Your task to perform on an android device: Open the map Image 0: 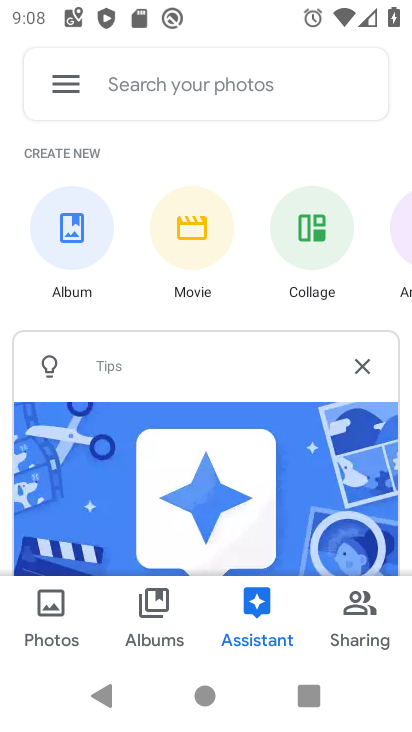
Step 0: press home button
Your task to perform on an android device: Open the map Image 1: 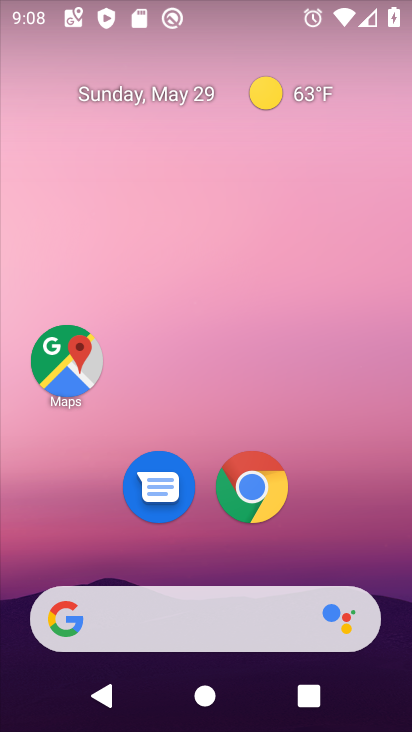
Step 1: drag from (207, 629) to (298, 139)
Your task to perform on an android device: Open the map Image 2: 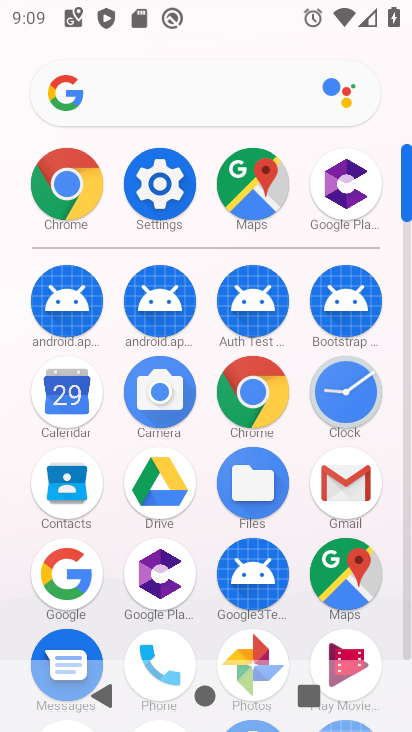
Step 2: click (258, 182)
Your task to perform on an android device: Open the map Image 3: 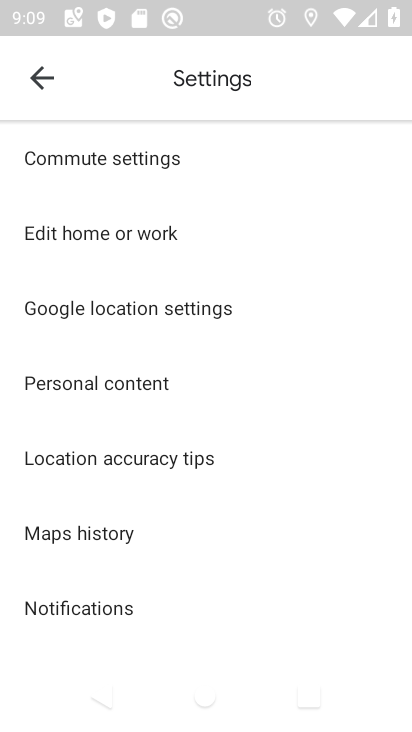
Step 3: press home button
Your task to perform on an android device: Open the map Image 4: 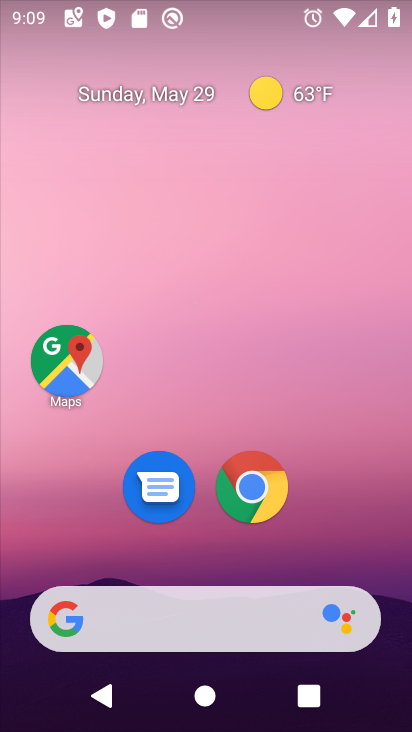
Step 4: click (65, 348)
Your task to perform on an android device: Open the map Image 5: 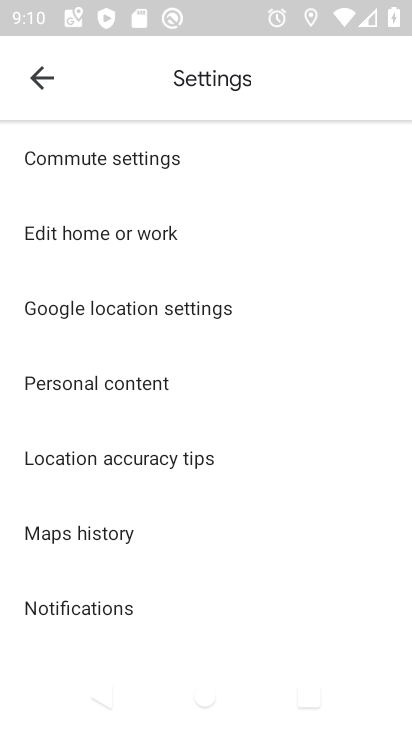
Step 5: press home button
Your task to perform on an android device: Open the map Image 6: 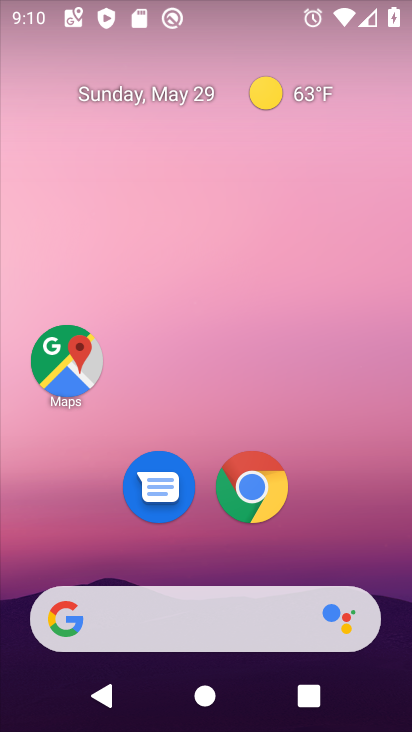
Step 6: click (78, 378)
Your task to perform on an android device: Open the map Image 7: 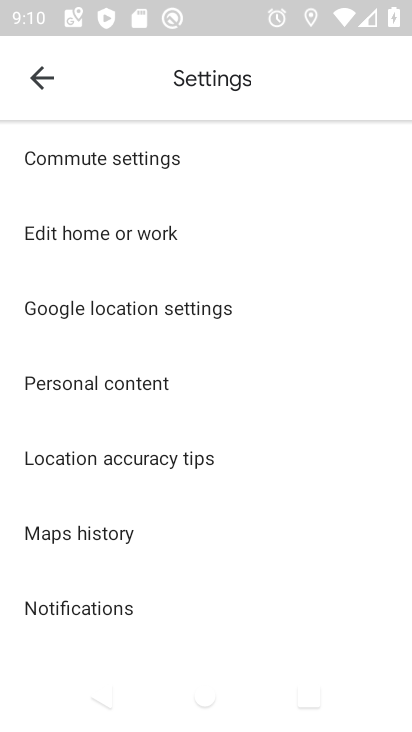
Step 7: click (29, 72)
Your task to perform on an android device: Open the map Image 8: 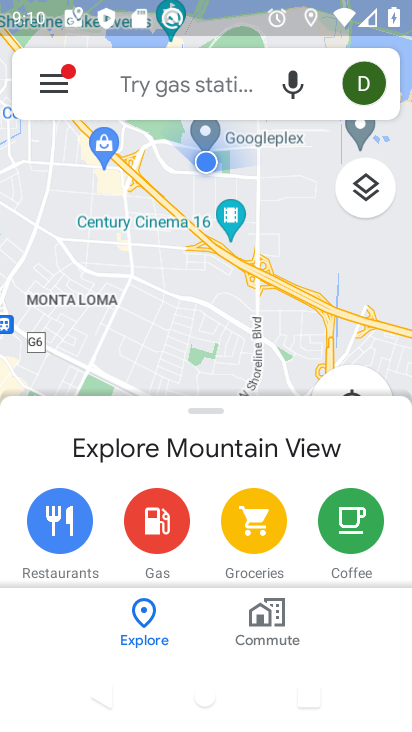
Step 8: task complete